Your task to perform on an android device: What is the recent news? Image 0: 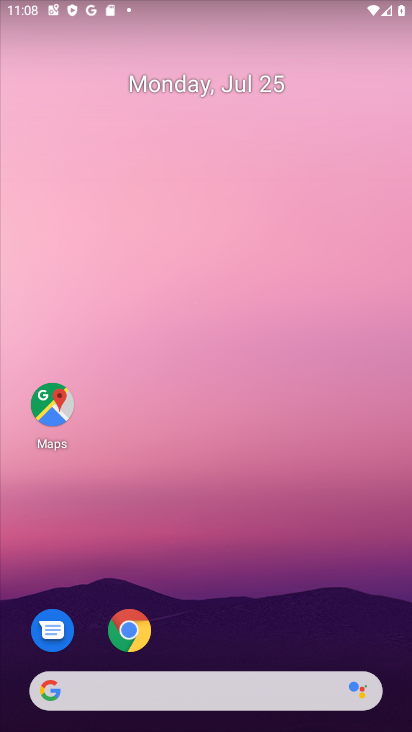
Step 0: click (123, 693)
Your task to perform on an android device: What is the recent news? Image 1: 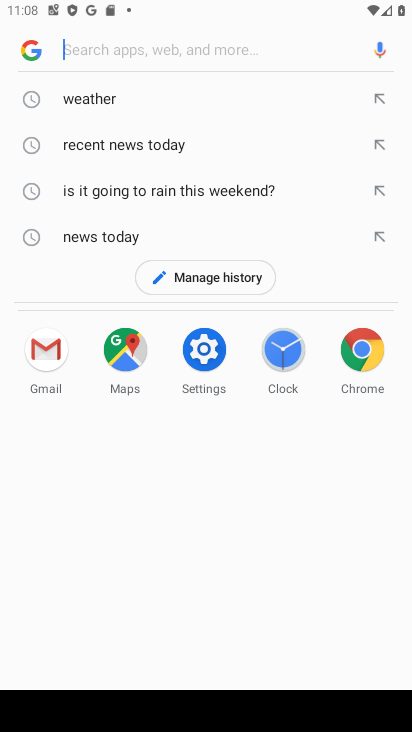
Step 1: click (176, 148)
Your task to perform on an android device: What is the recent news? Image 2: 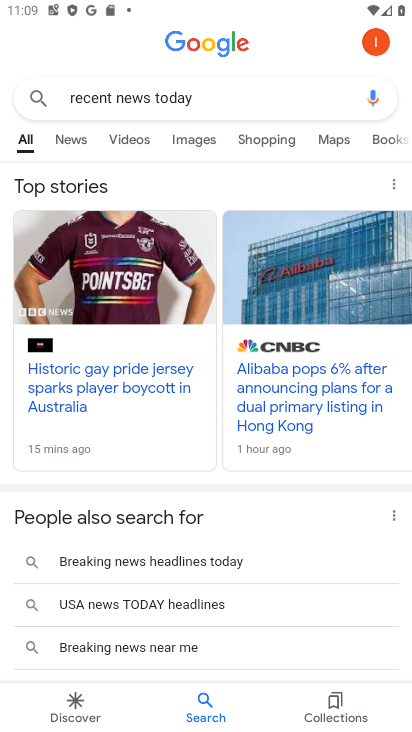
Step 2: click (108, 378)
Your task to perform on an android device: What is the recent news? Image 3: 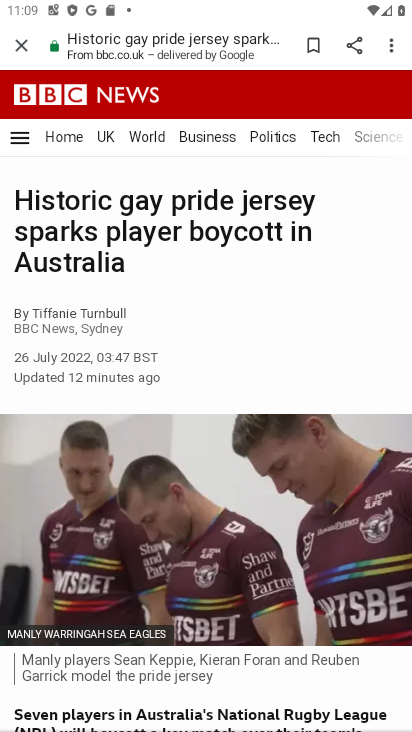
Step 3: task complete